Your task to perform on an android device: Go to calendar. Show me events next week Image 0: 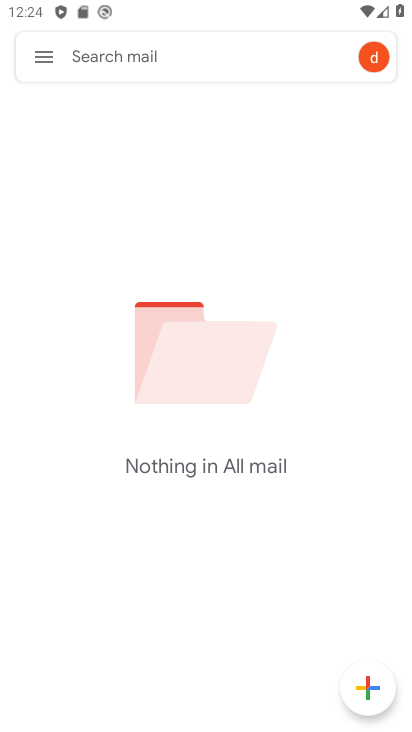
Step 0: press home button
Your task to perform on an android device: Go to calendar. Show me events next week Image 1: 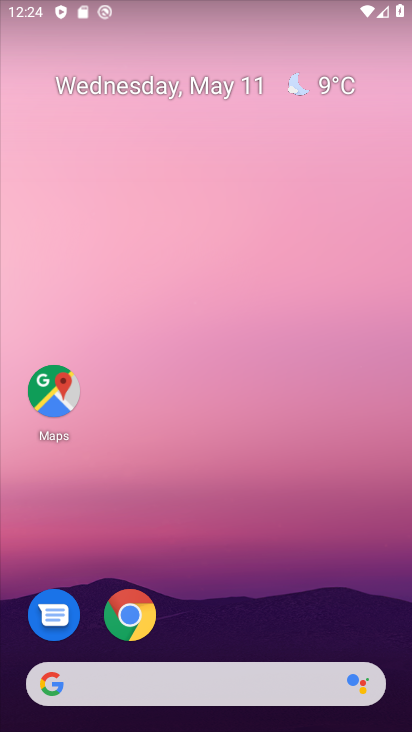
Step 1: drag from (314, 580) to (328, 136)
Your task to perform on an android device: Go to calendar. Show me events next week Image 2: 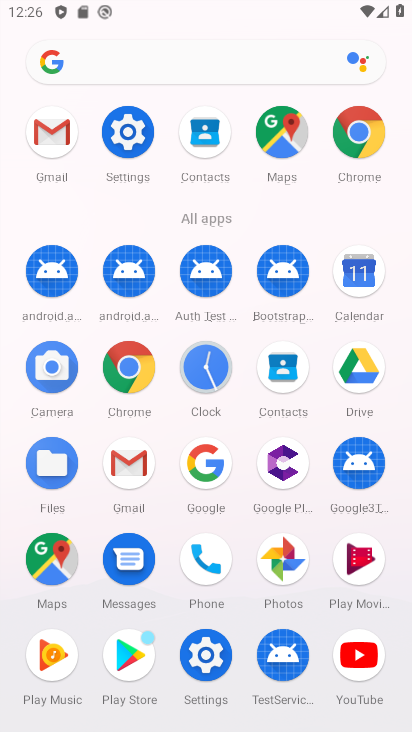
Step 2: click (353, 294)
Your task to perform on an android device: Go to calendar. Show me events next week Image 3: 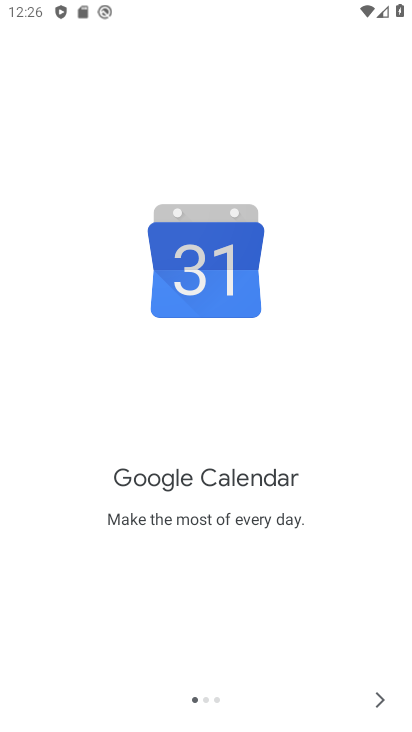
Step 3: click (375, 706)
Your task to perform on an android device: Go to calendar. Show me events next week Image 4: 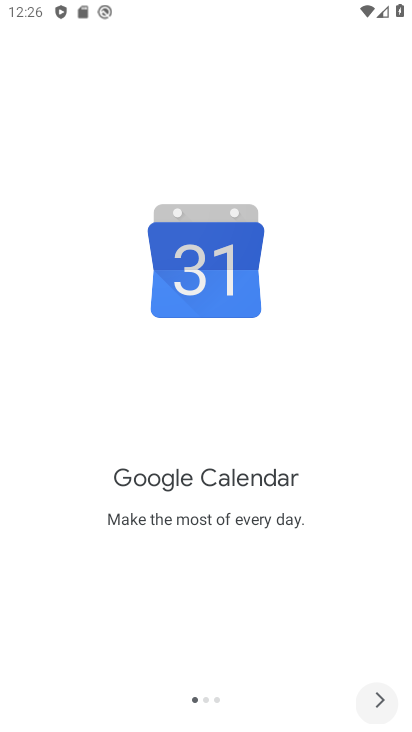
Step 4: click (375, 706)
Your task to perform on an android device: Go to calendar. Show me events next week Image 5: 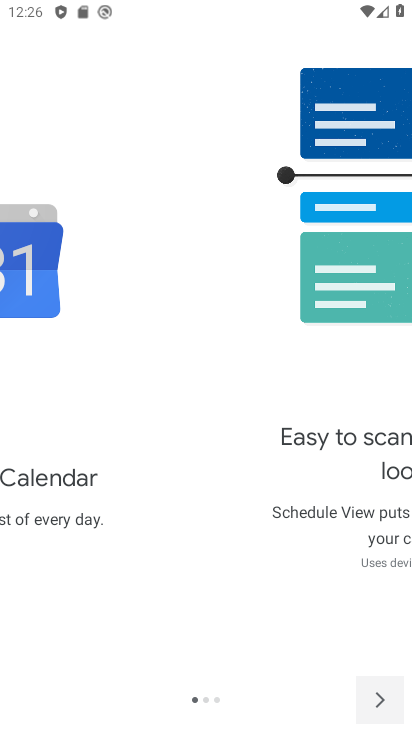
Step 5: click (375, 706)
Your task to perform on an android device: Go to calendar. Show me events next week Image 6: 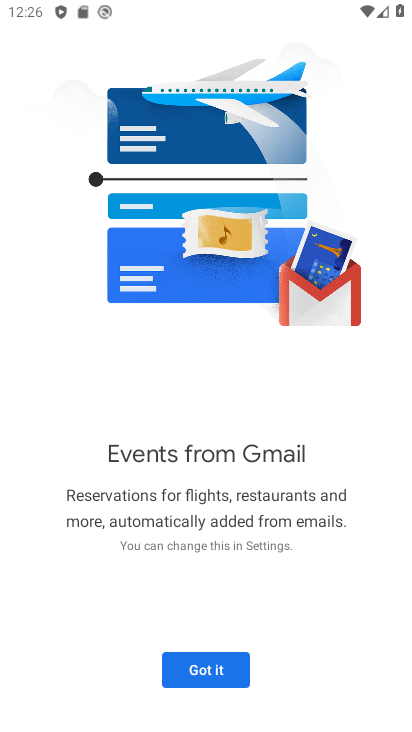
Step 6: click (375, 706)
Your task to perform on an android device: Go to calendar. Show me events next week Image 7: 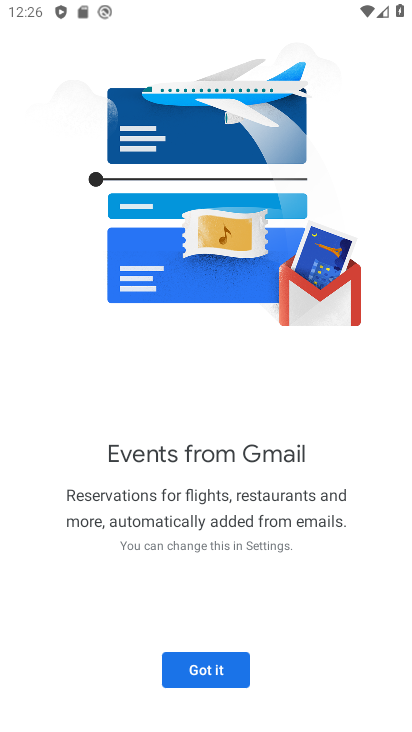
Step 7: click (221, 662)
Your task to perform on an android device: Go to calendar. Show me events next week Image 8: 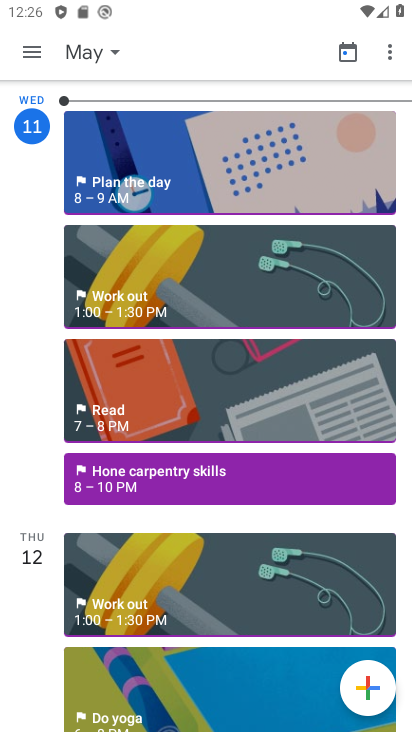
Step 8: task complete